Your task to perform on an android device: toggle javascript in the chrome app Image 0: 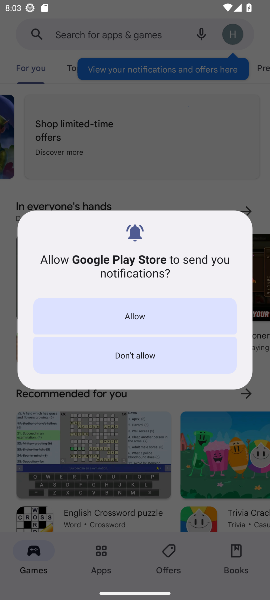
Step 0: press home button
Your task to perform on an android device: toggle javascript in the chrome app Image 1: 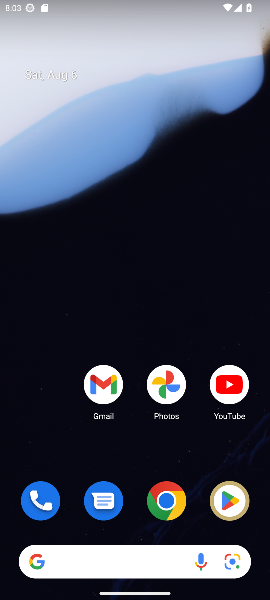
Step 1: click (152, 500)
Your task to perform on an android device: toggle javascript in the chrome app Image 2: 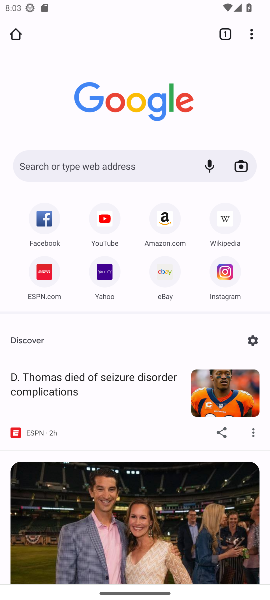
Step 2: click (250, 38)
Your task to perform on an android device: toggle javascript in the chrome app Image 3: 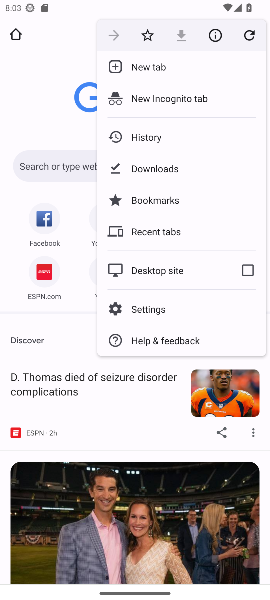
Step 3: click (134, 309)
Your task to perform on an android device: toggle javascript in the chrome app Image 4: 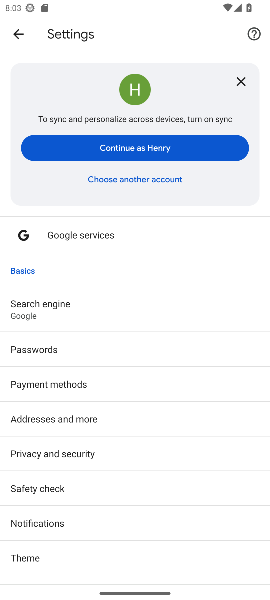
Step 4: drag from (148, 526) to (113, 262)
Your task to perform on an android device: toggle javascript in the chrome app Image 5: 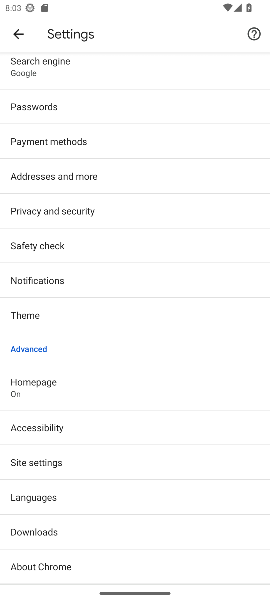
Step 5: click (29, 462)
Your task to perform on an android device: toggle javascript in the chrome app Image 6: 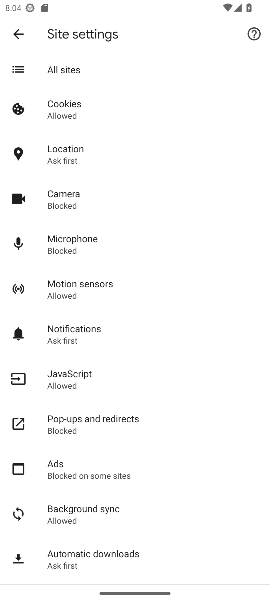
Step 6: click (79, 375)
Your task to perform on an android device: toggle javascript in the chrome app Image 7: 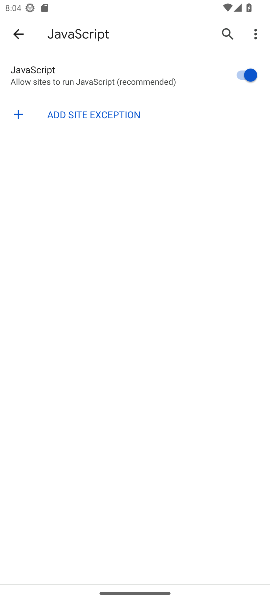
Step 7: task complete